Your task to perform on an android device: add a contact Image 0: 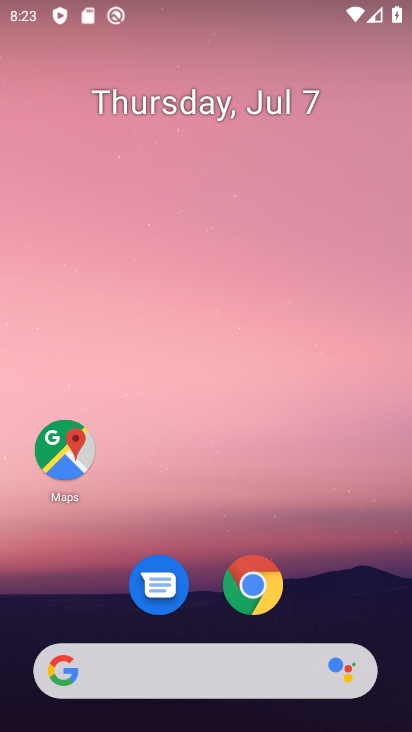
Step 0: drag from (288, 483) to (278, 15)
Your task to perform on an android device: add a contact Image 1: 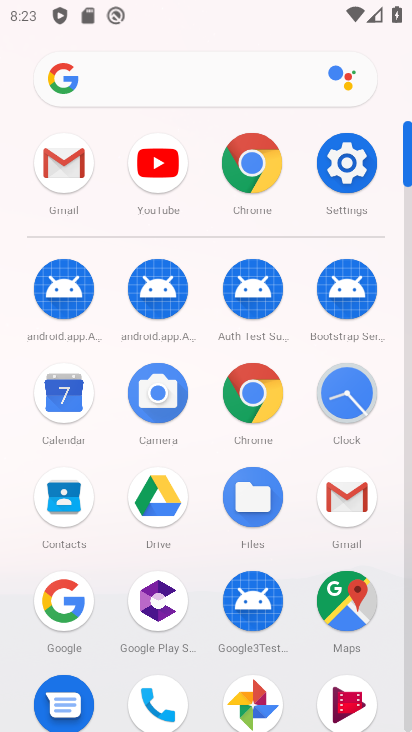
Step 1: click (63, 501)
Your task to perform on an android device: add a contact Image 2: 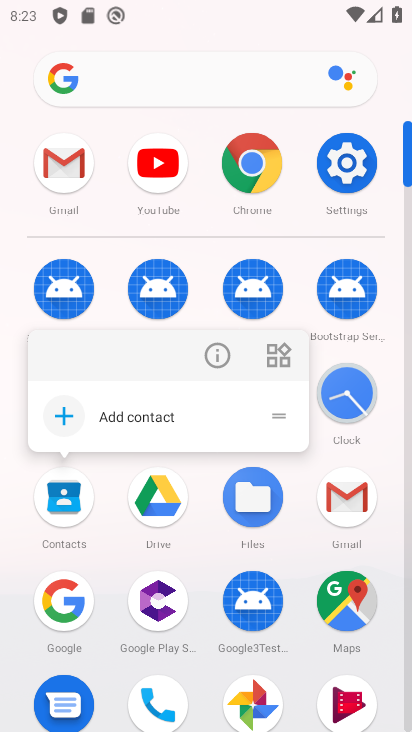
Step 2: click (63, 503)
Your task to perform on an android device: add a contact Image 3: 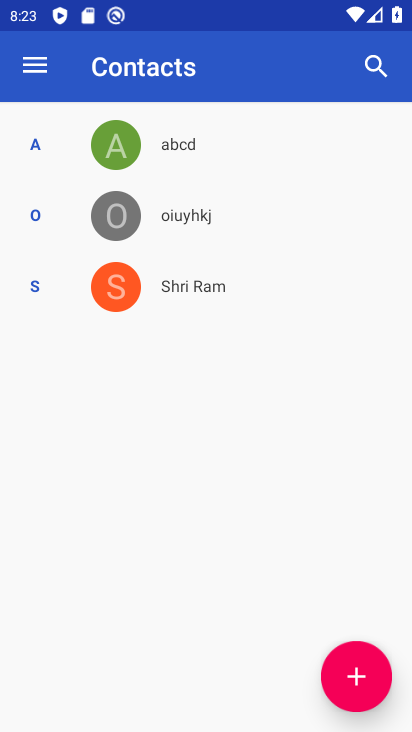
Step 3: click (354, 672)
Your task to perform on an android device: add a contact Image 4: 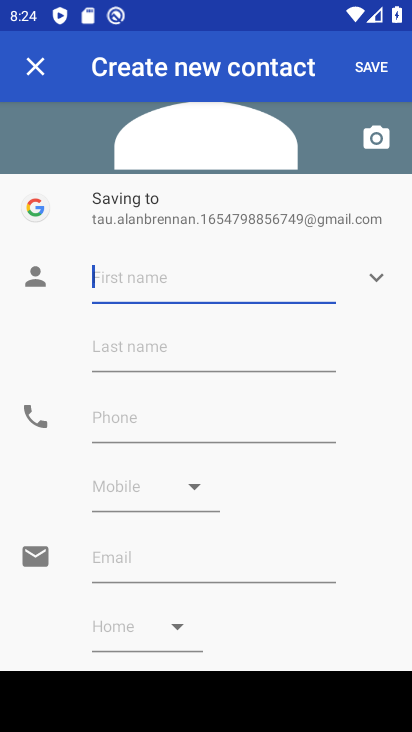
Step 4: type "Hare Krishna Hare Ram"
Your task to perform on an android device: add a contact Image 5: 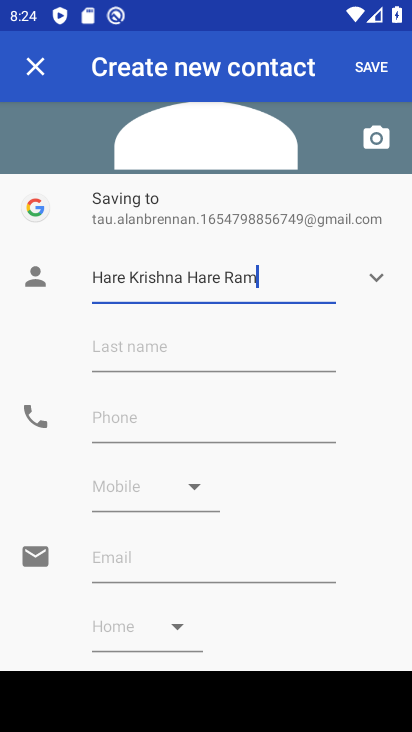
Step 5: click (178, 428)
Your task to perform on an android device: add a contact Image 6: 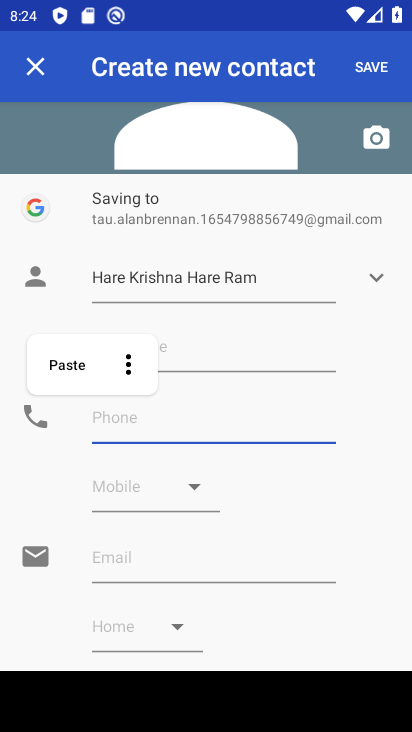
Step 6: type "99997775555"
Your task to perform on an android device: add a contact Image 7: 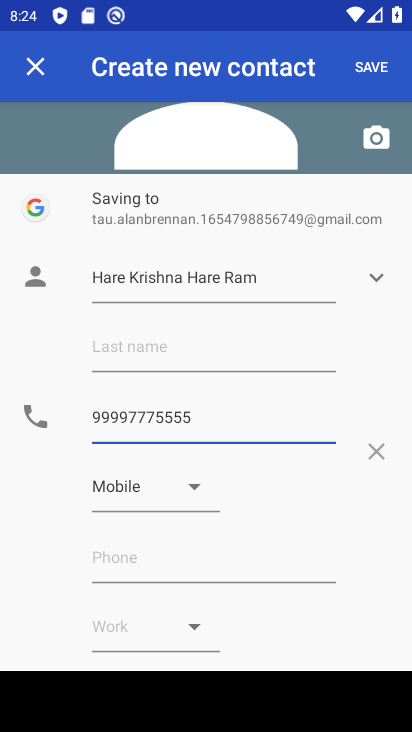
Step 7: click (368, 61)
Your task to perform on an android device: add a contact Image 8: 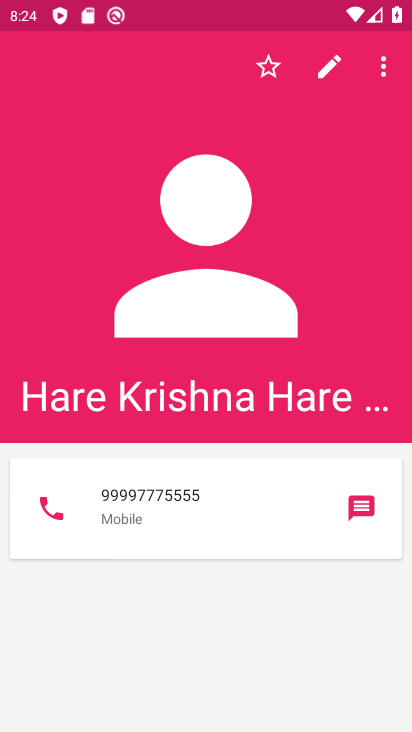
Step 8: task complete